Your task to perform on an android device: See recent photos Image 0: 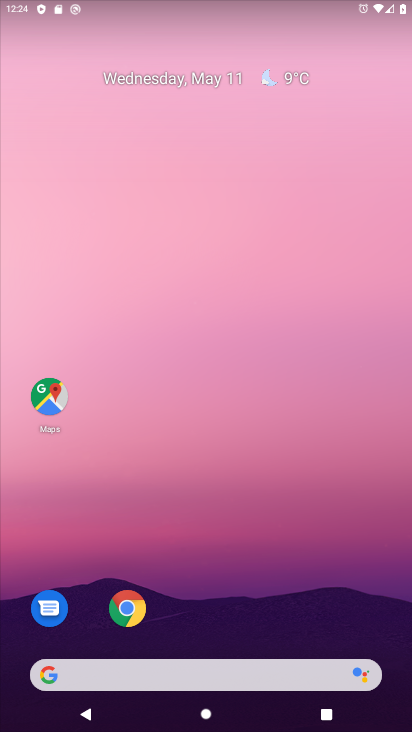
Step 0: drag from (330, 568) to (400, 121)
Your task to perform on an android device: See recent photos Image 1: 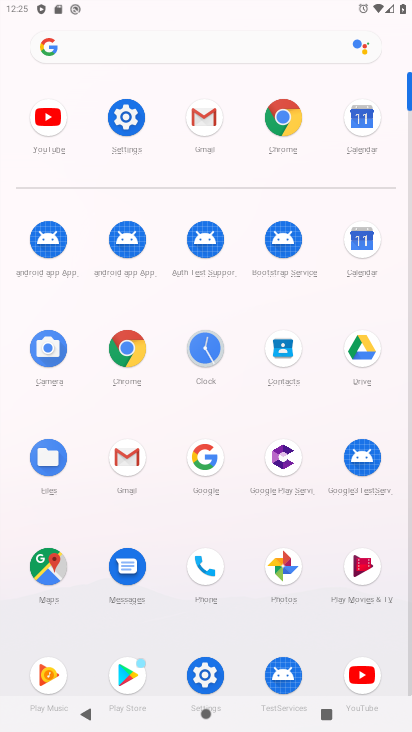
Step 1: drag from (190, 470) to (107, 129)
Your task to perform on an android device: See recent photos Image 2: 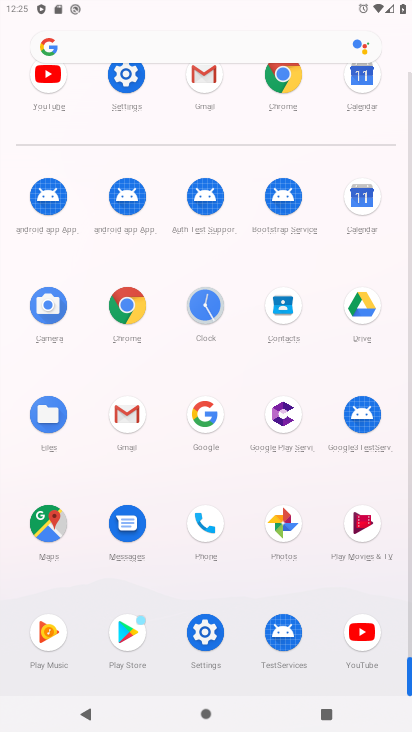
Step 2: click (297, 528)
Your task to perform on an android device: See recent photos Image 3: 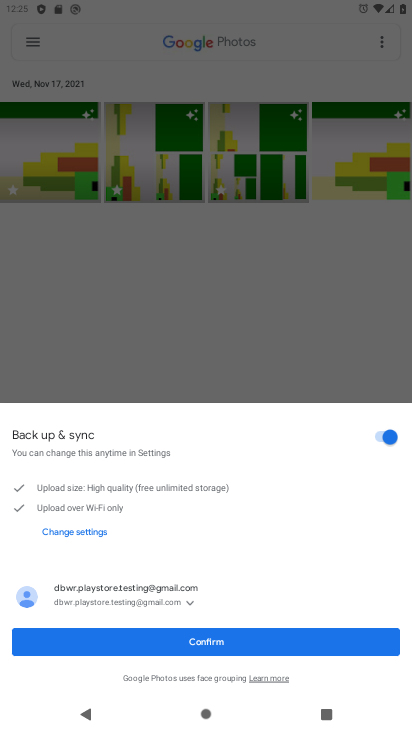
Step 3: click (287, 654)
Your task to perform on an android device: See recent photos Image 4: 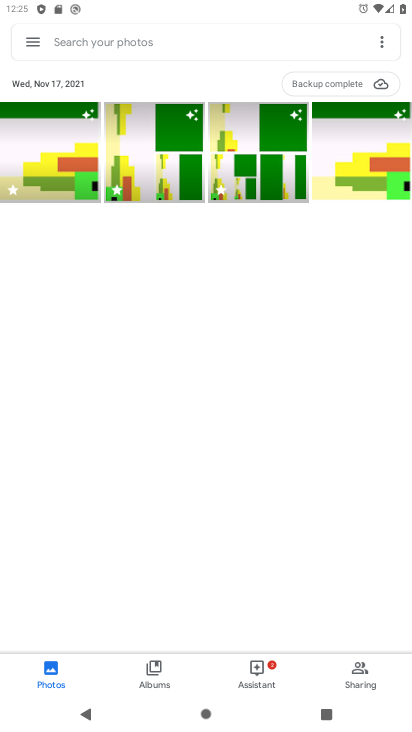
Step 4: task complete